Your task to perform on an android device: Search for flights from Mexico city to Seattle Image 0: 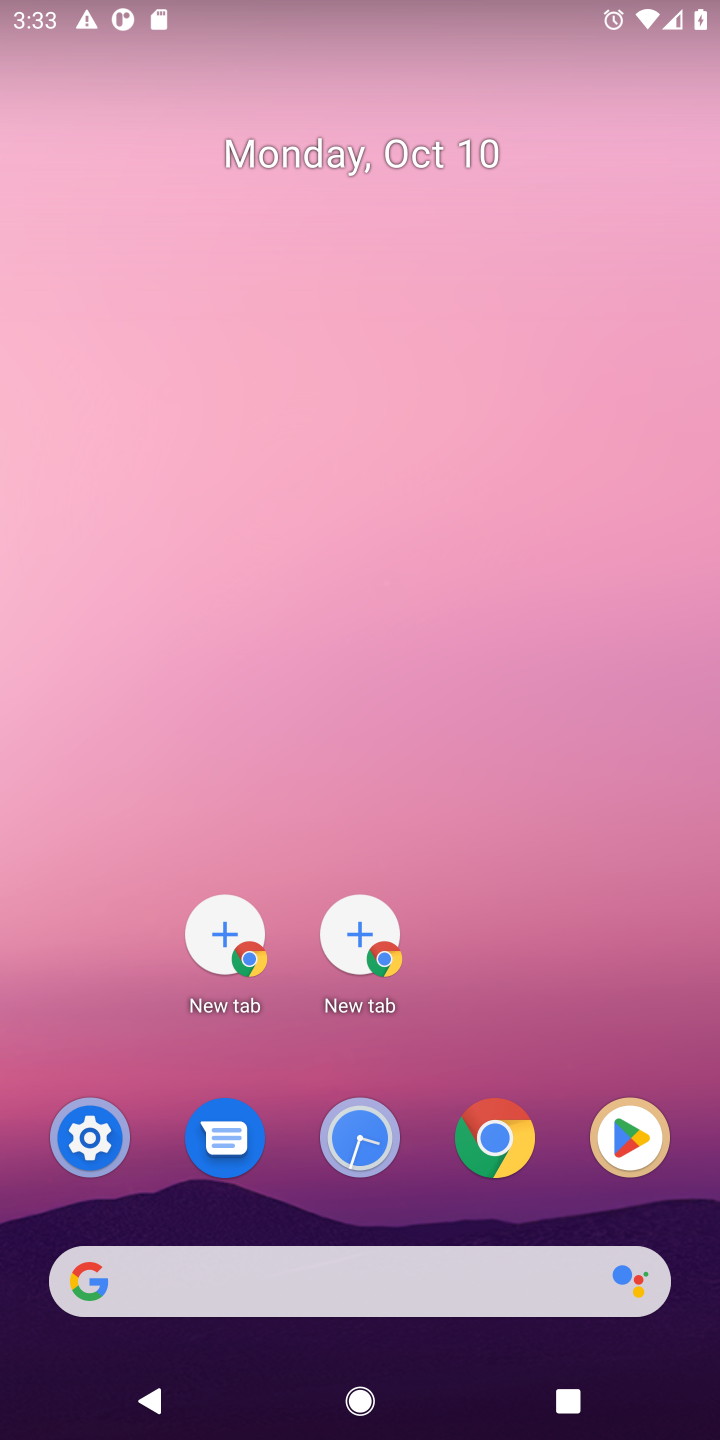
Step 0: click (511, 1151)
Your task to perform on an android device: Search for flights from Mexico city to Seattle Image 1: 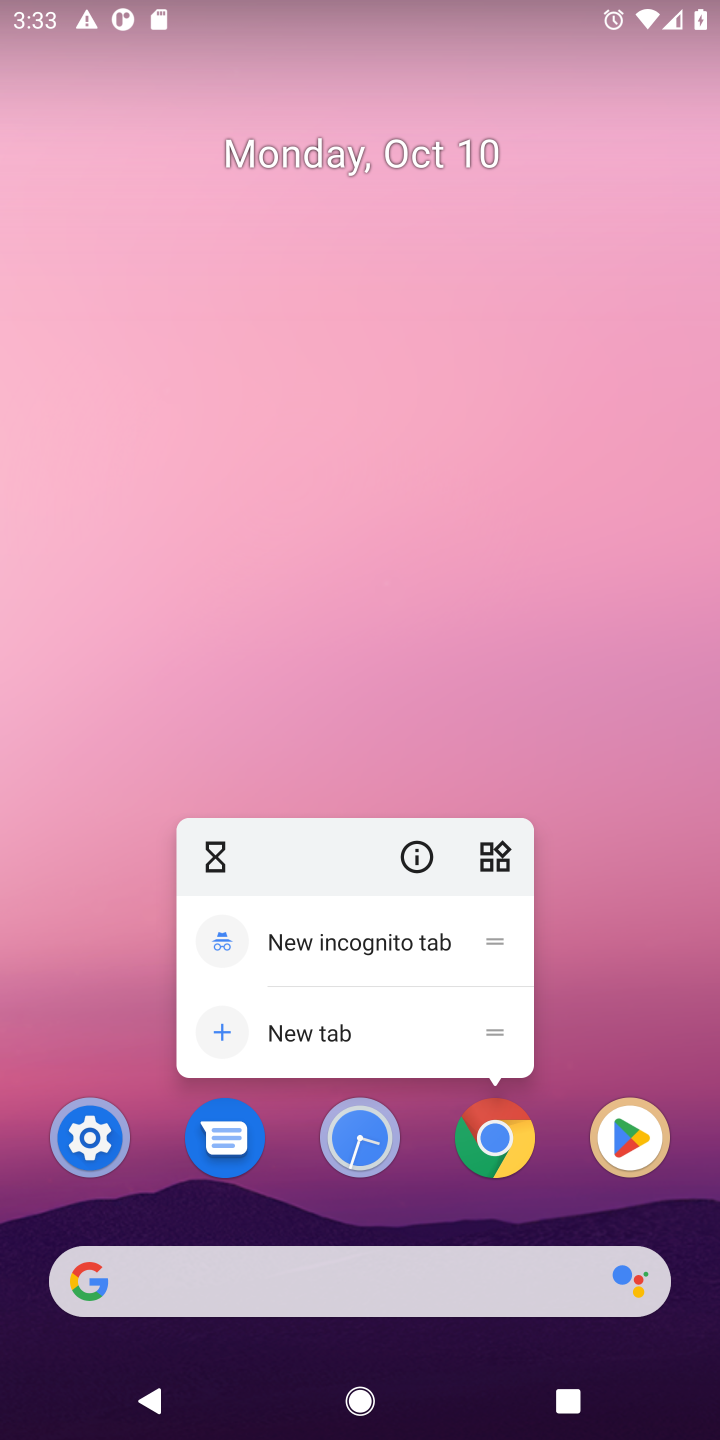
Step 1: click (498, 1145)
Your task to perform on an android device: Search for flights from Mexico city to Seattle Image 2: 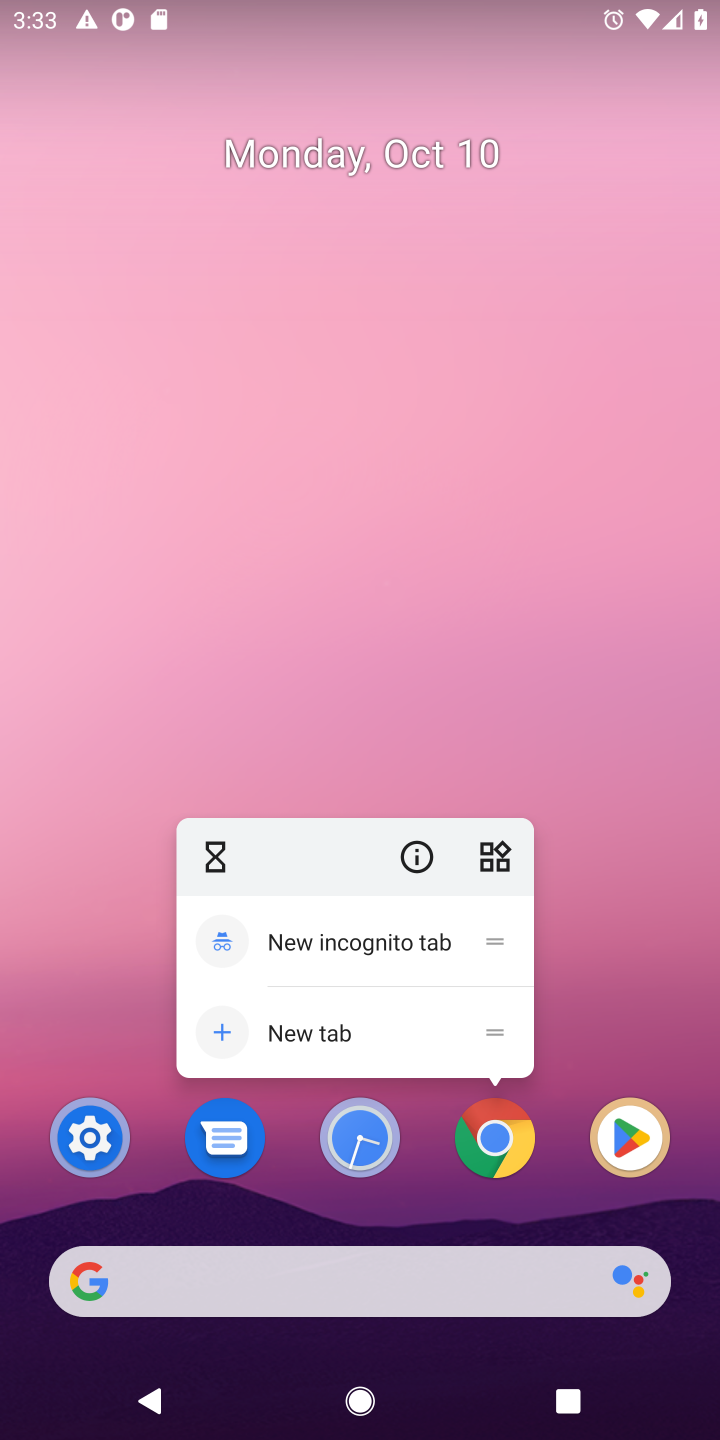
Step 2: click (496, 1177)
Your task to perform on an android device: Search for flights from Mexico city to Seattle Image 3: 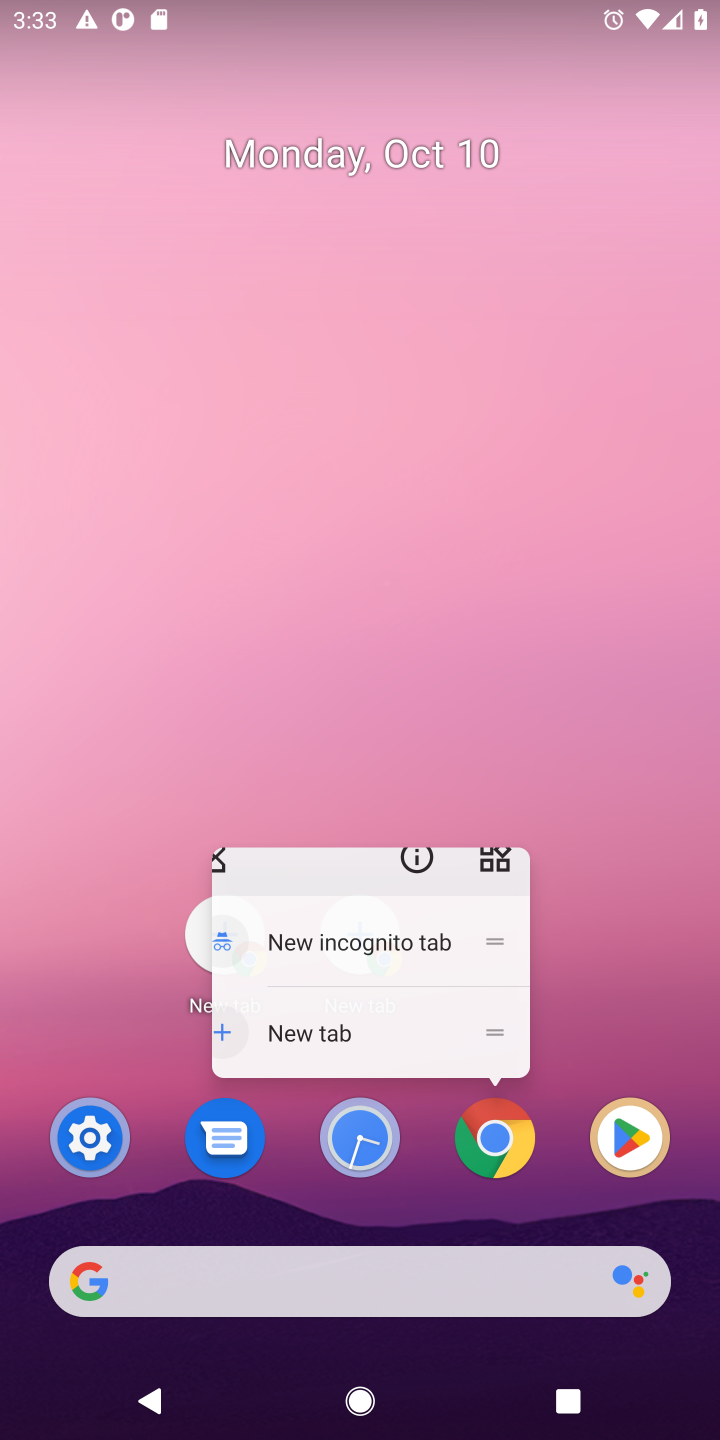
Step 3: click (499, 1168)
Your task to perform on an android device: Search for flights from Mexico city to Seattle Image 4: 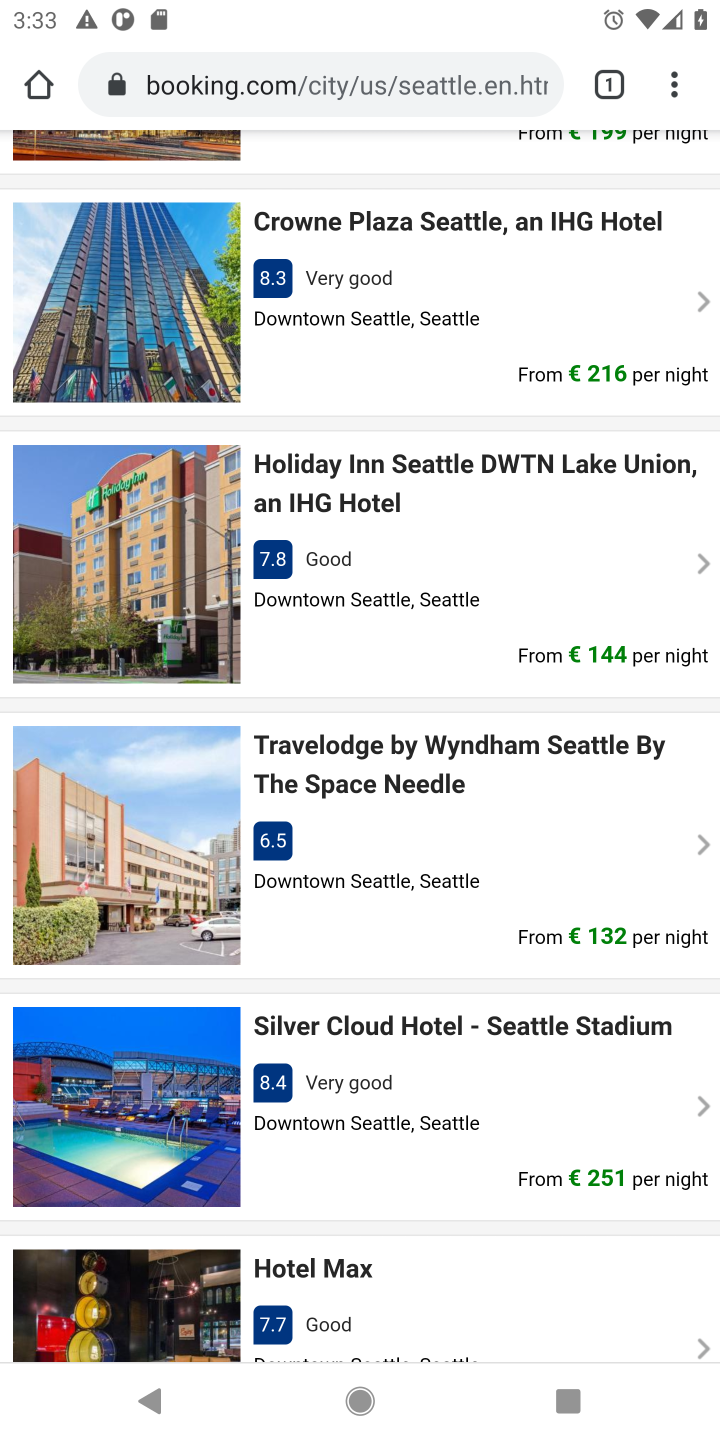
Step 4: click (463, 82)
Your task to perform on an android device: Search for flights from Mexico city to Seattle Image 5: 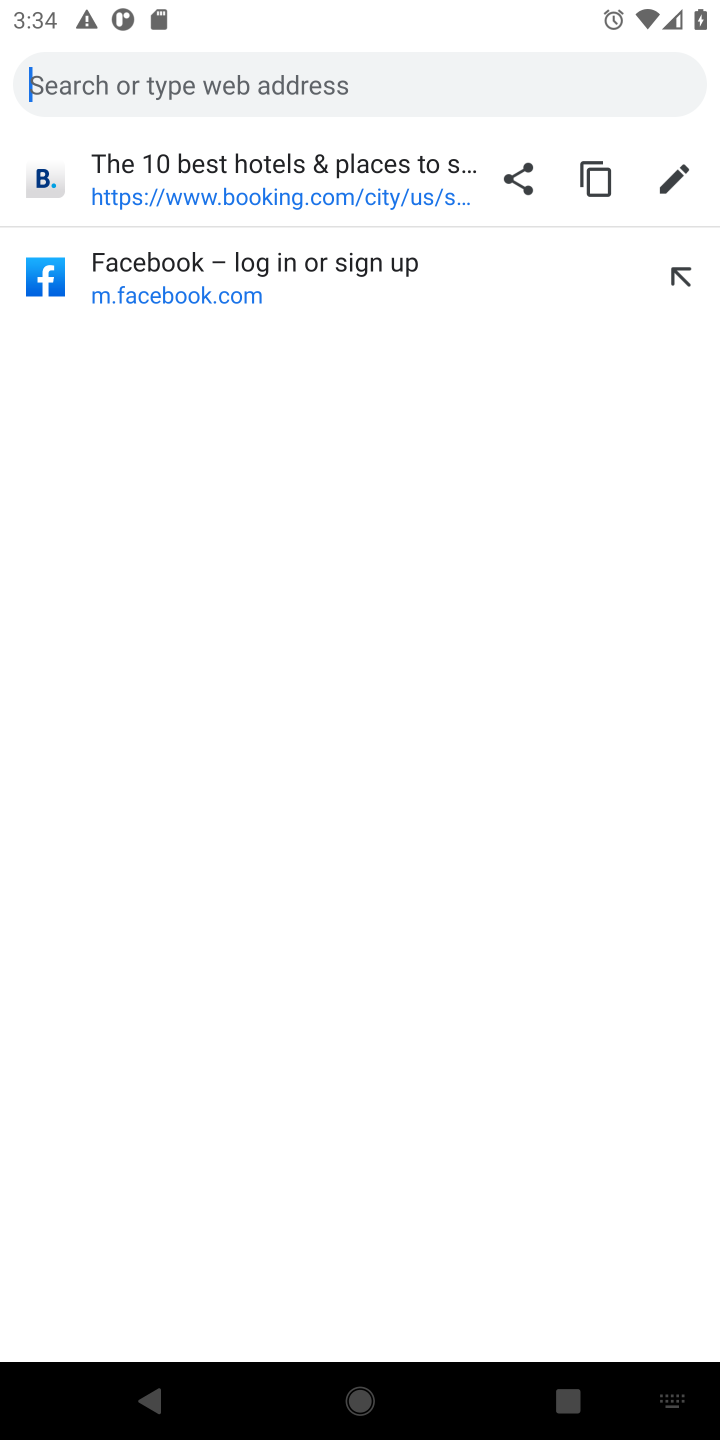
Step 5: type "flights from mexico city to seattle"
Your task to perform on an android device: Search for flights from Mexico city to Seattle Image 6: 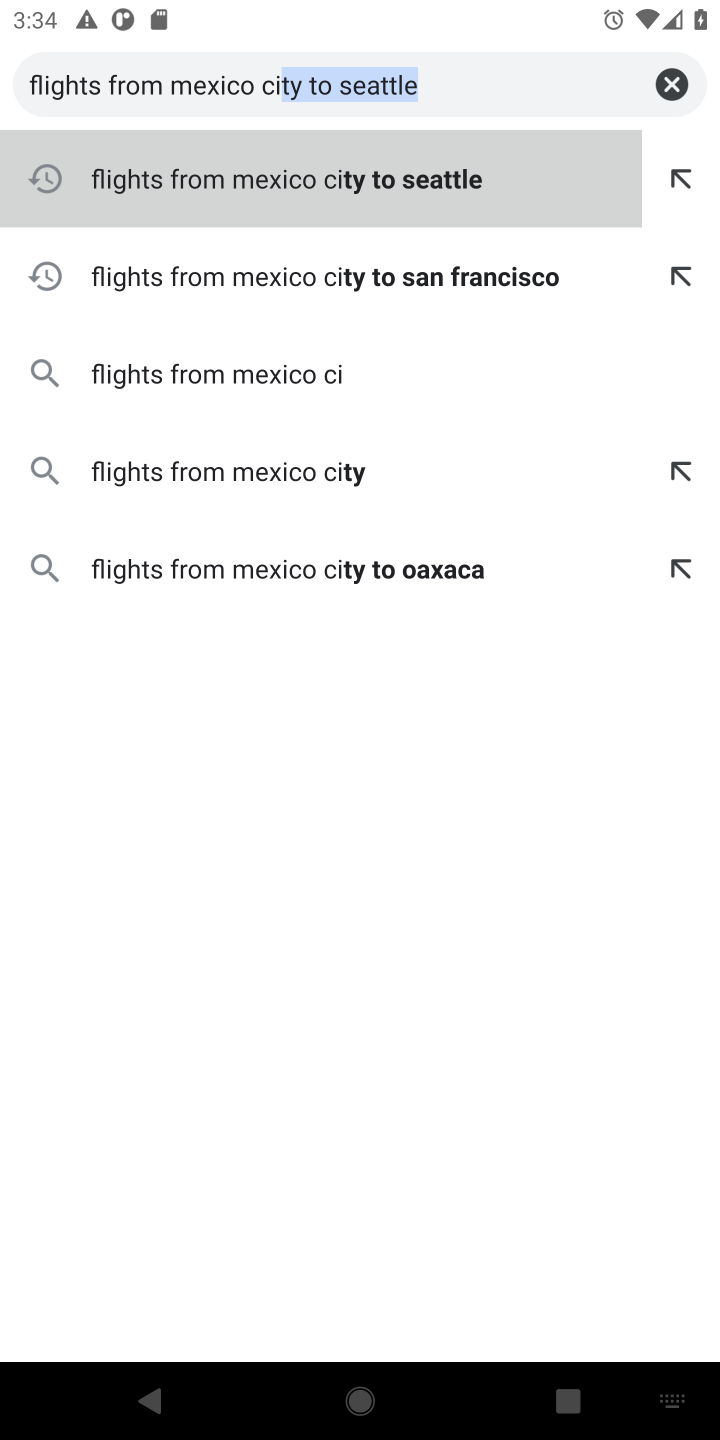
Step 6: type ""
Your task to perform on an android device: Search for flights from Mexico city to Seattle Image 7: 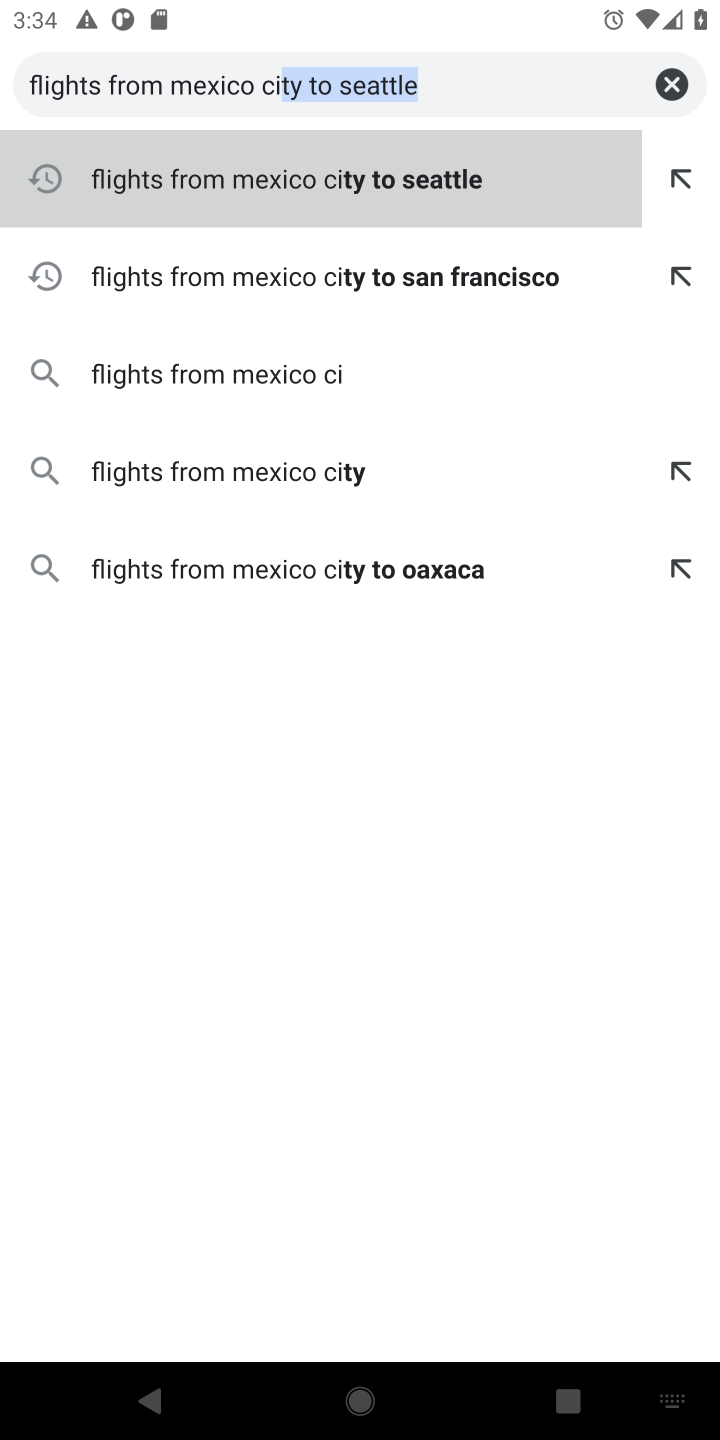
Step 7: click (499, 81)
Your task to perform on an android device: Search for flights from Mexico city to Seattle Image 8: 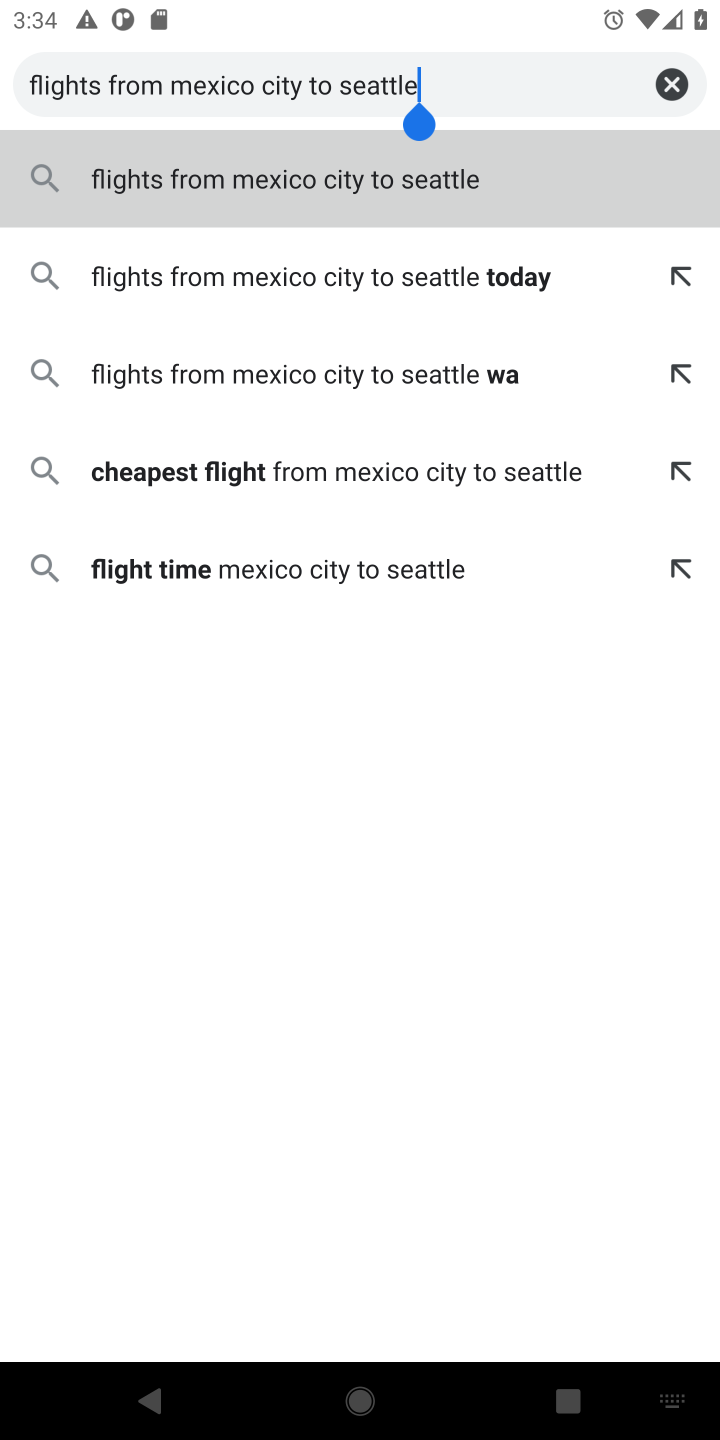
Step 8: press enter
Your task to perform on an android device: Search for flights from Mexico city to Seattle Image 9: 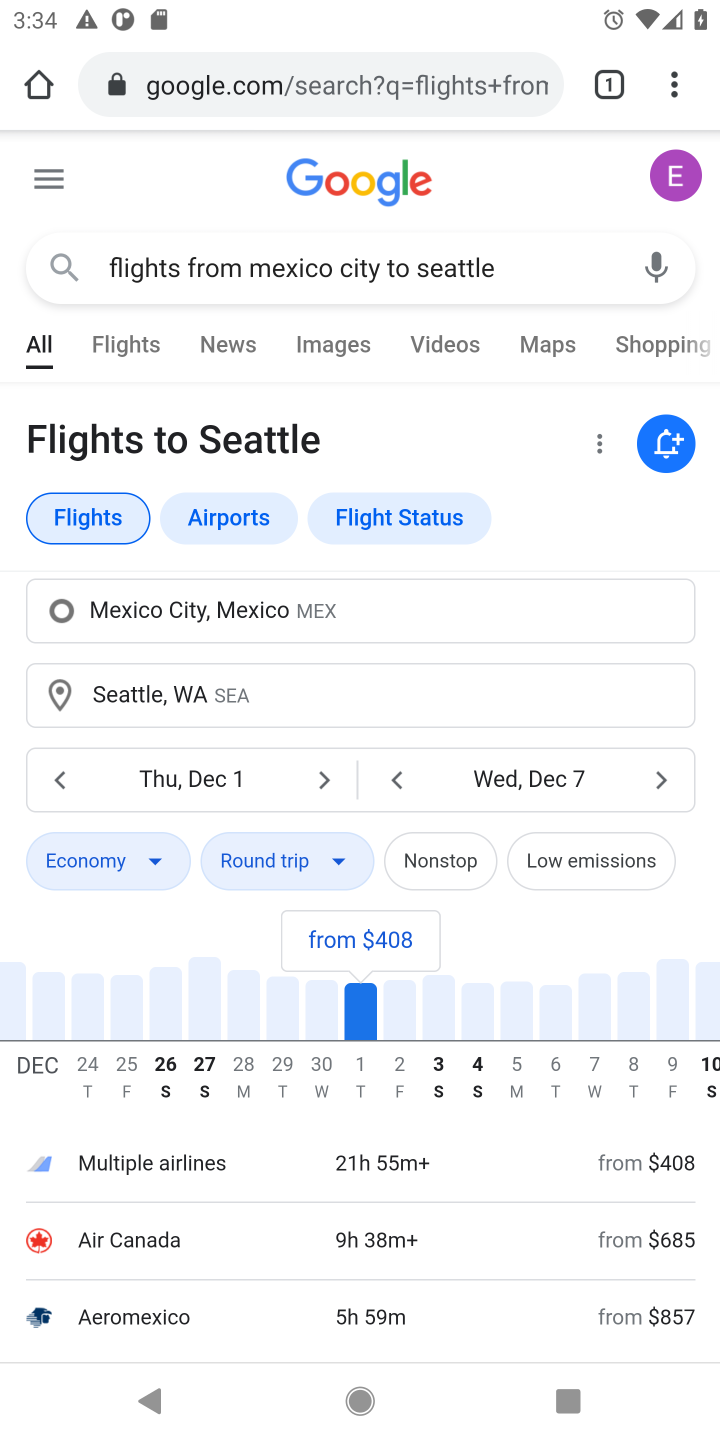
Step 9: drag from (405, 944) to (534, 348)
Your task to perform on an android device: Search for flights from Mexico city to Seattle Image 10: 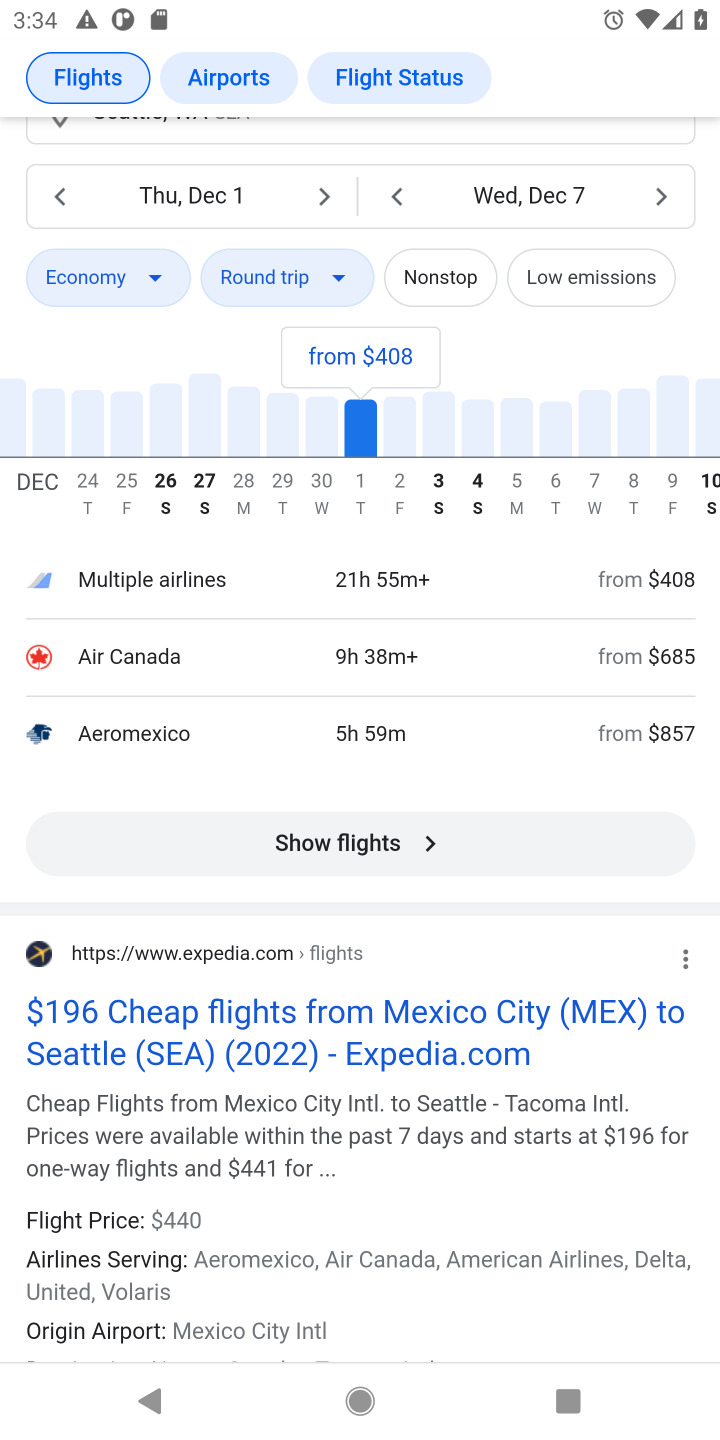
Step 10: click (269, 967)
Your task to perform on an android device: Search for flights from Mexico city to Seattle Image 11: 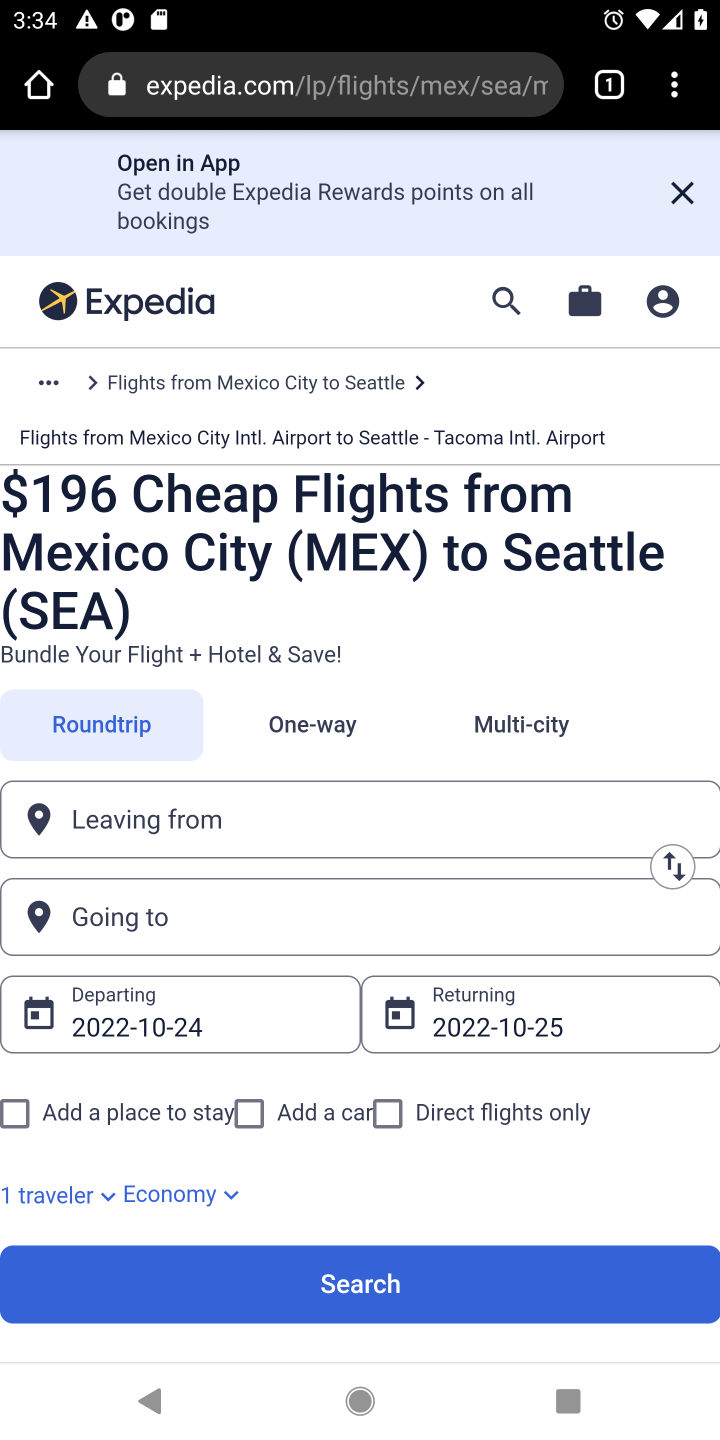
Step 11: task complete